Your task to perform on an android device: Open Youtube and go to "Your channel" Image 0: 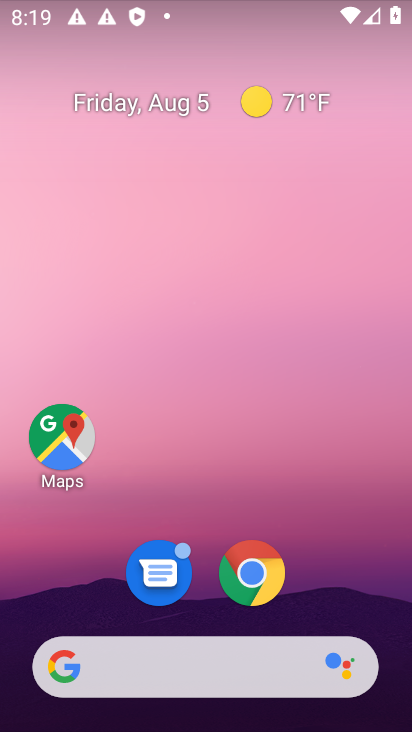
Step 0: press home button
Your task to perform on an android device: Open Youtube and go to "Your channel" Image 1: 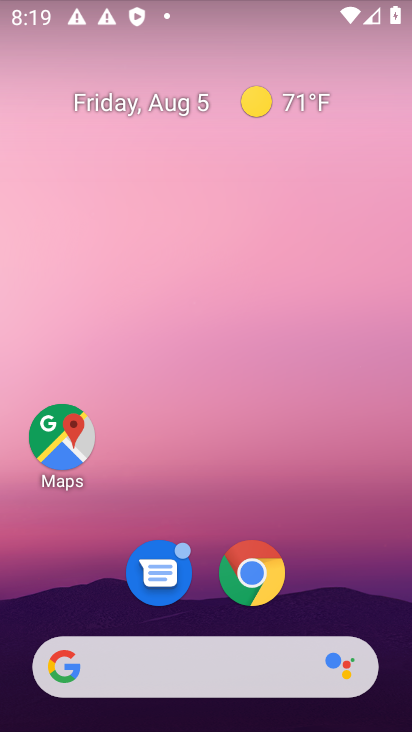
Step 1: click (234, 87)
Your task to perform on an android device: Open Youtube and go to "Your channel" Image 2: 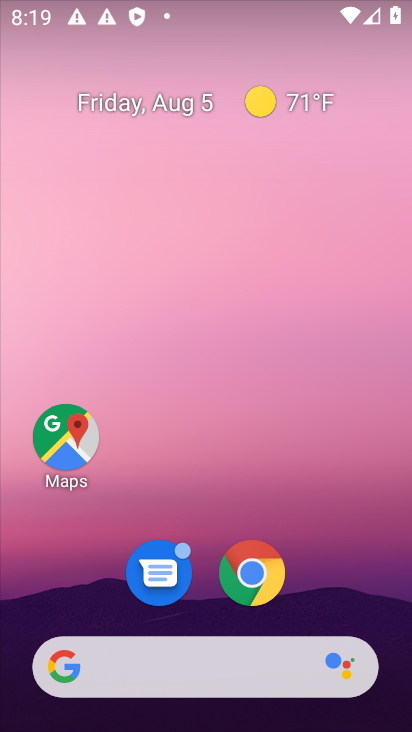
Step 2: drag from (305, 594) to (341, 36)
Your task to perform on an android device: Open Youtube and go to "Your channel" Image 3: 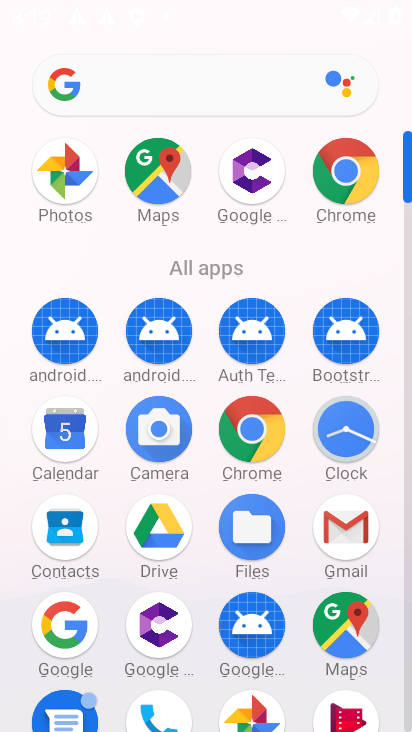
Step 3: drag from (199, 511) to (246, 115)
Your task to perform on an android device: Open Youtube and go to "Your channel" Image 4: 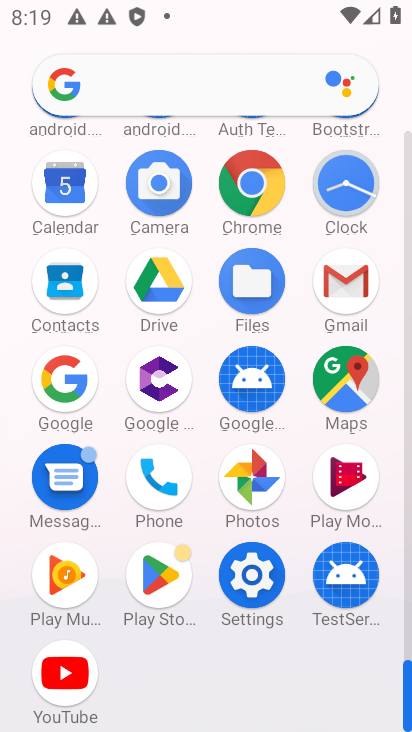
Step 4: click (62, 666)
Your task to perform on an android device: Open Youtube and go to "Your channel" Image 5: 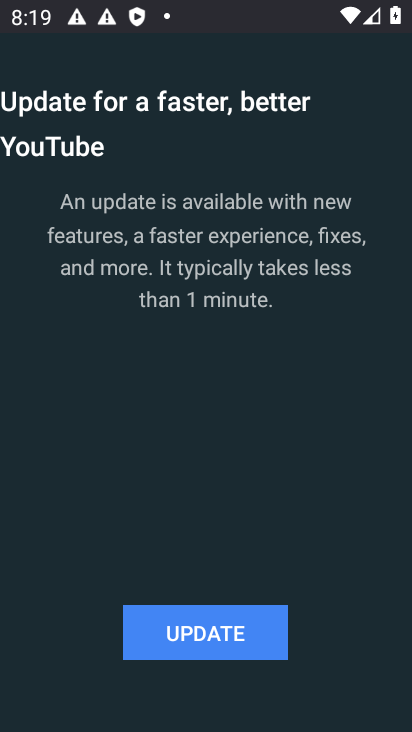
Step 5: click (208, 630)
Your task to perform on an android device: Open Youtube and go to "Your channel" Image 6: 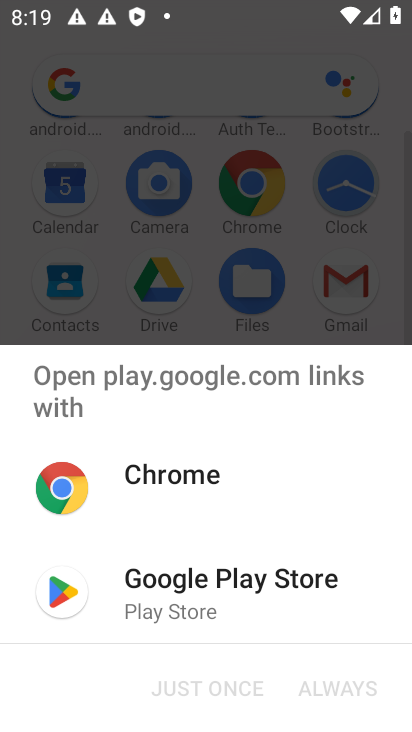
Step 6: click (111, 595)
Your task to perform on an android device: Open Youtube and go to "Your channel" Image 7: 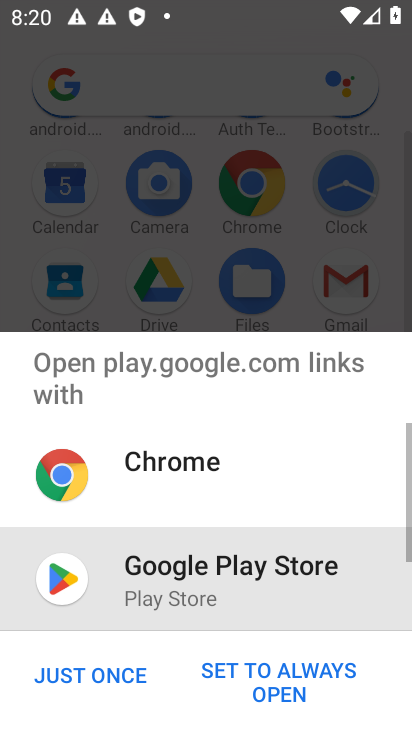
Step 7: click (97, 676)
Your task to perform on an android device: Open Youtube and go to "Your channel" Image 8: 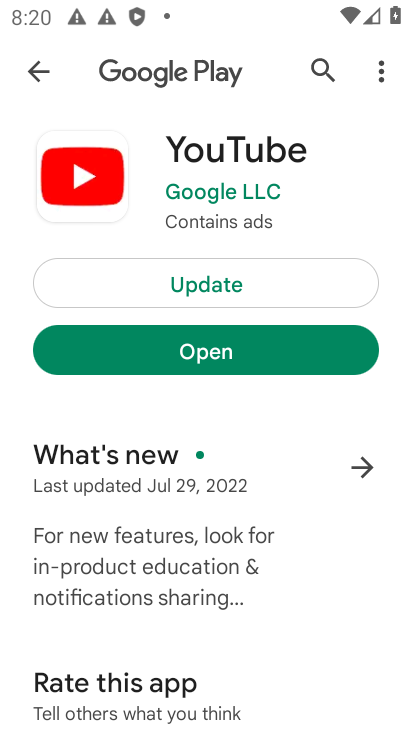
Step 8: click (213, 281)
Your task to perform on an android device: Open Youtube and go to "Your channel" Image 9: 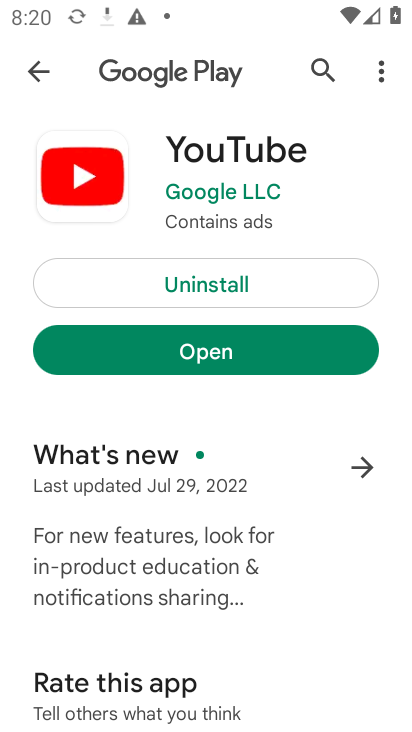
Step 9: click (212, 350)
Your task to perform on an android device: Open Youtube and go to "Your channel" Image 10: 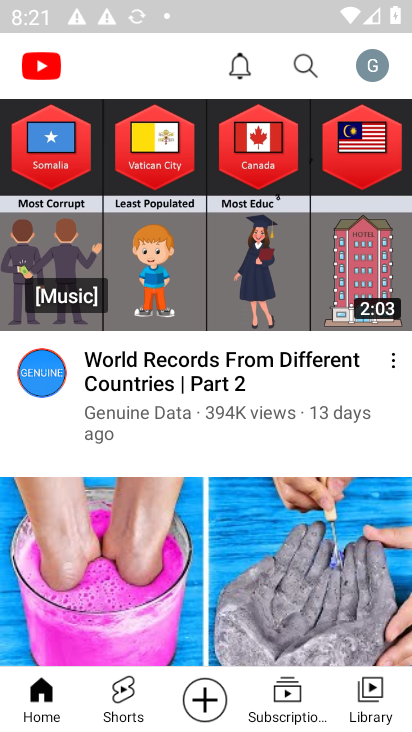
Step 10: click (370, 63)
Your task to perform on an android device: Open Youtube and go to "Your channel" Image 11: 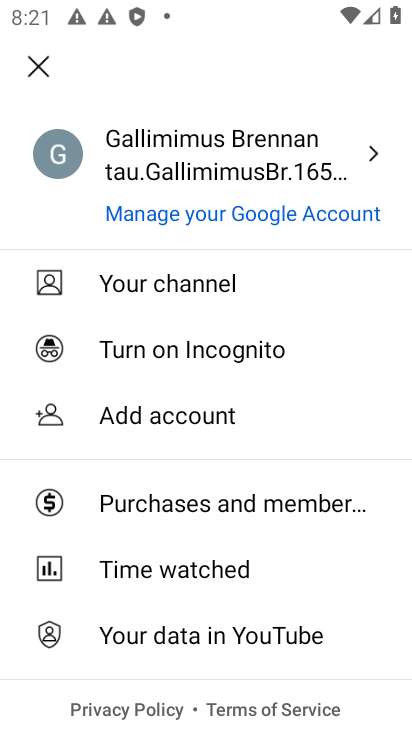
Step 11: click (234, 278)
Your task to perform on an android device: Open Youtube and go to "Your channel" Image 12: 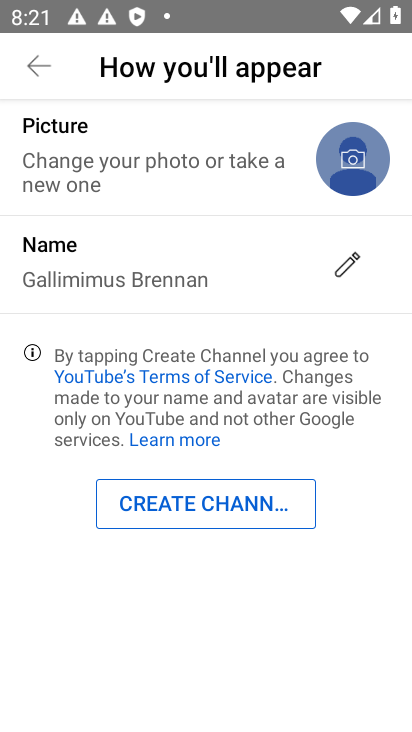
Step 12: task complete